Your task to perform on an android device: change alarm snooze length Image 0: 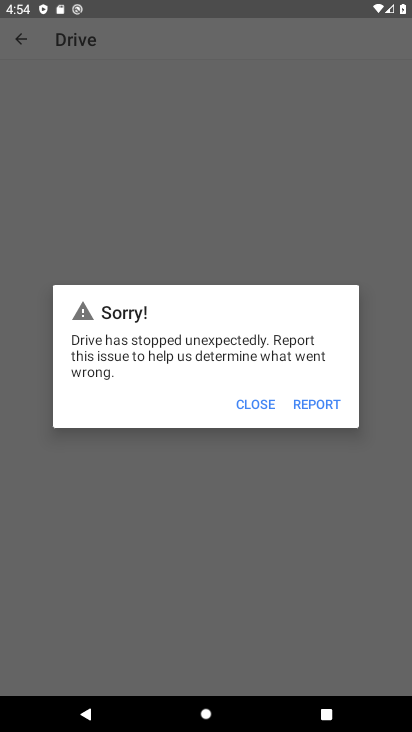
Step 0: press home button
Your task to perform on an android device: change alarm snooze length Image 1: 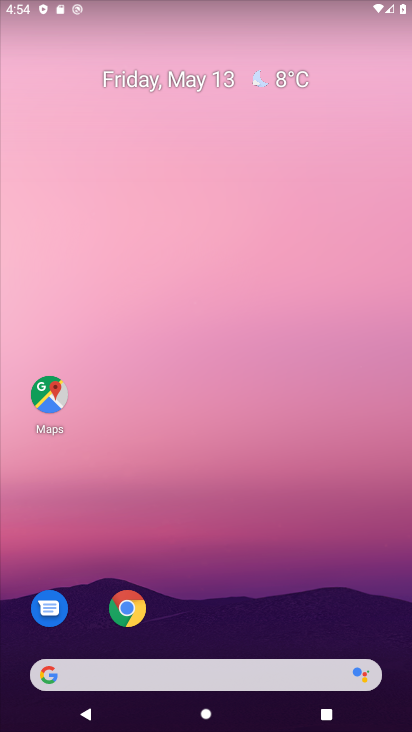
Step 1: drag from (202, 567) to (247, 134)
Your task to perform on an android device: change alarm snooze length Image 2: 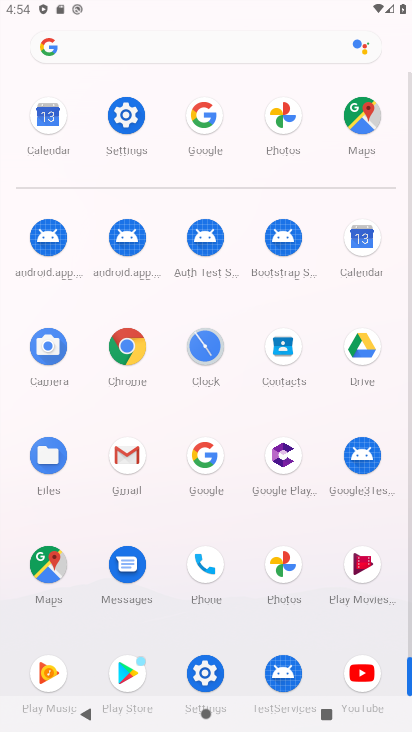
Step 2: click (205, 347)
Your task to perform on an android device: change alarm snooze length Image 3: 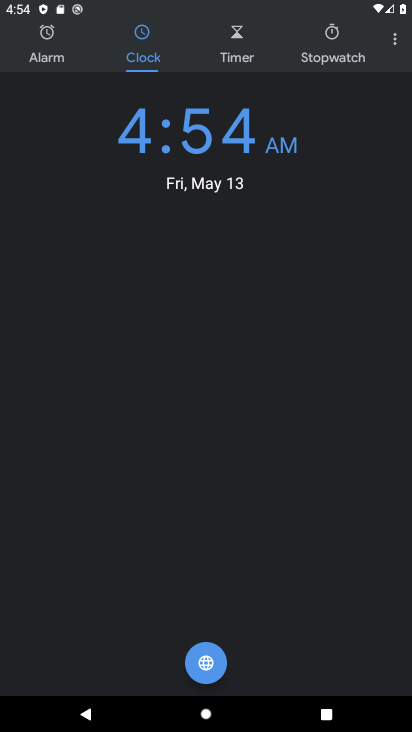
Step 3: click (394, 42)
Your task to perform on an android device: change alarm snooze length Image 4: 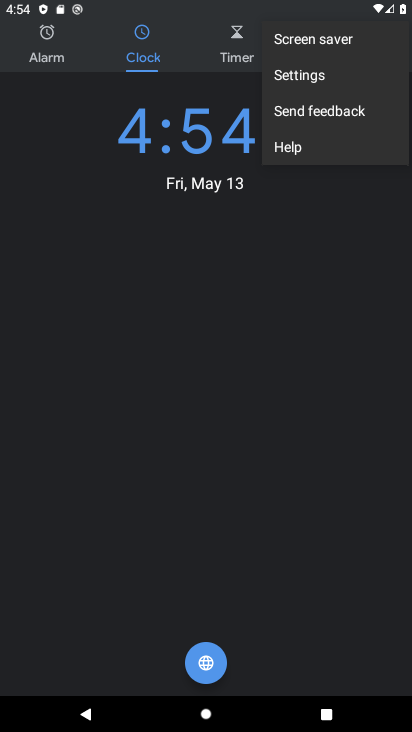
Step 4: click (321, 74)
Your task to perform on an android device: change alarm snooze length Image 5: 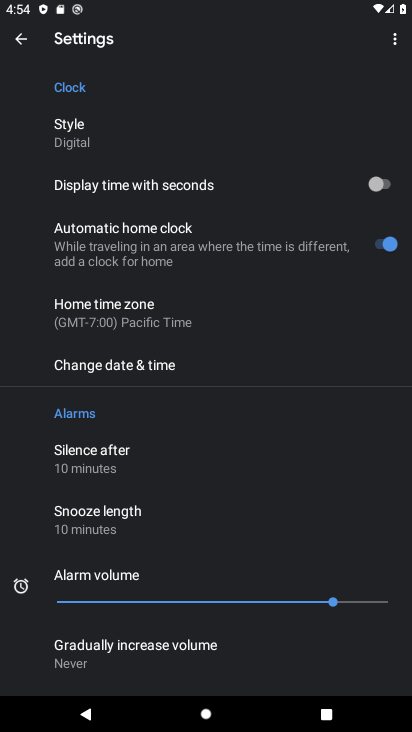
Step 5: drag from (143, 463) to (177, 349)
Your task to perform on an android device: change alarm snooze length Image 6: 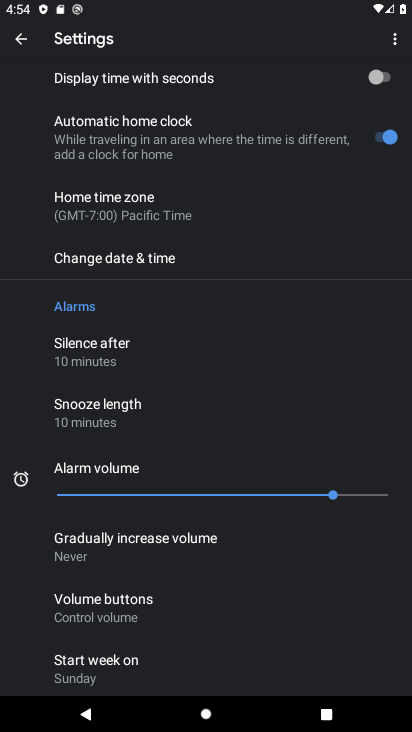
Step 6: click (124, 417)
Your task to perform on an android device: change alarm snooze length Image 7: 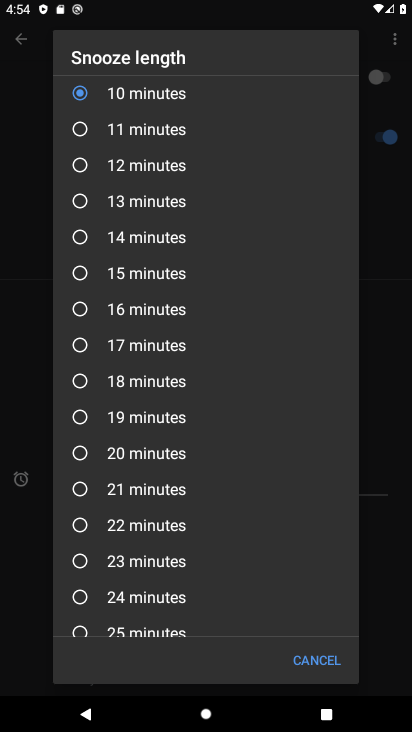
Step 7: click (147, 482)
Your task to perform on an android device: change alarm snooze length Image 8: 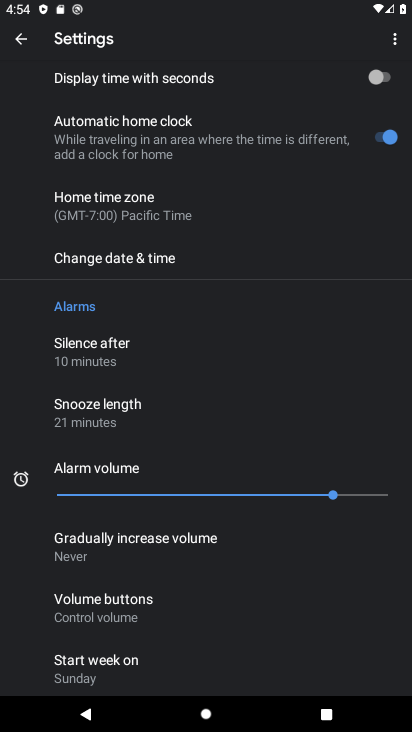
Step 8: task complete